Your task to perform on an android device: turn on wifi Image 0: 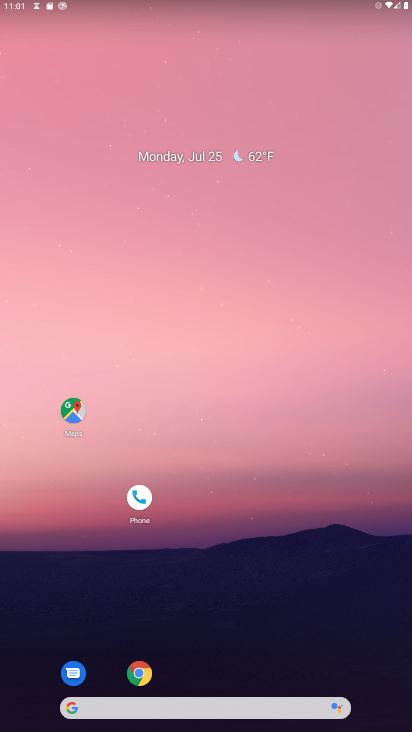
Step 0: press home button
Your task to perform on an android device: turn on wifi Image 1: 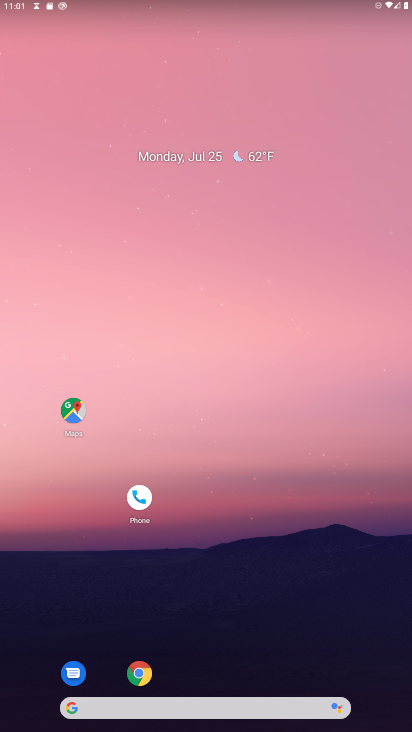
Step 1: drag from (260, 653) to (276, 93)
Your task to perform on an android device: turn on wifi Image 2: 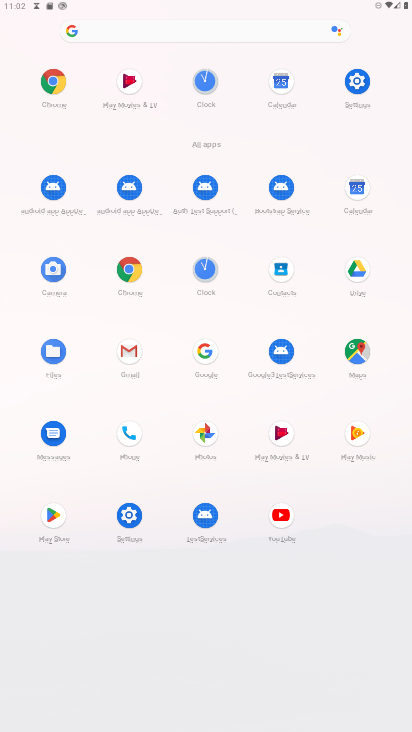
Step 2: click (350, 78)
Your task to perform on an android device: turn on wifi Image 3: 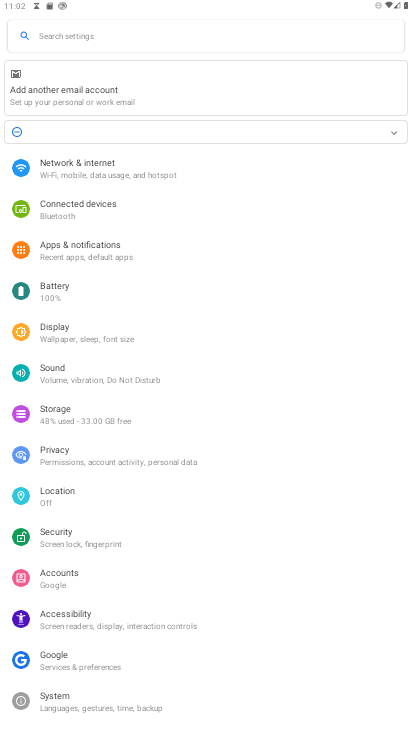
Step 3: click (67, 162)
Your task to perform on an android device: turn on wifi Image 4: 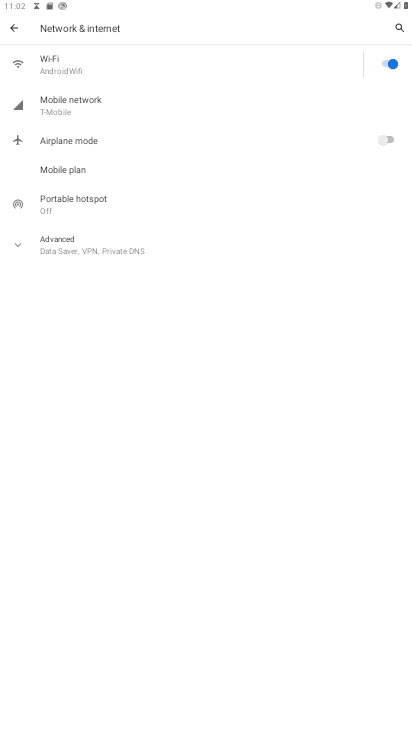
Step 4: task complete